Your task to perform on an android device: find photos in the google photos app Image 0: 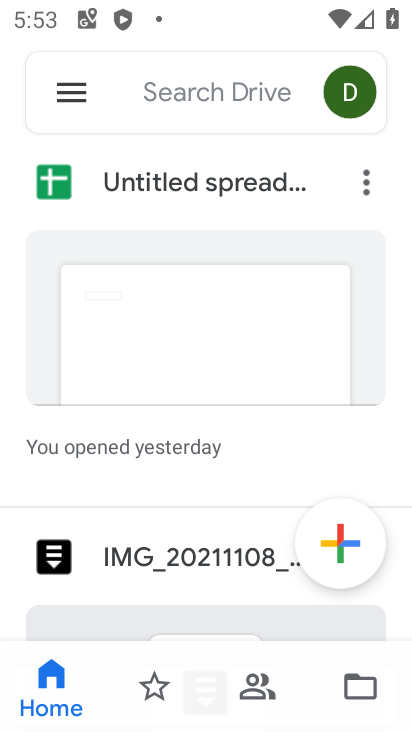
Step 0: press home button
Your task to perform on an android device: find photos in the google photos app Image 1: 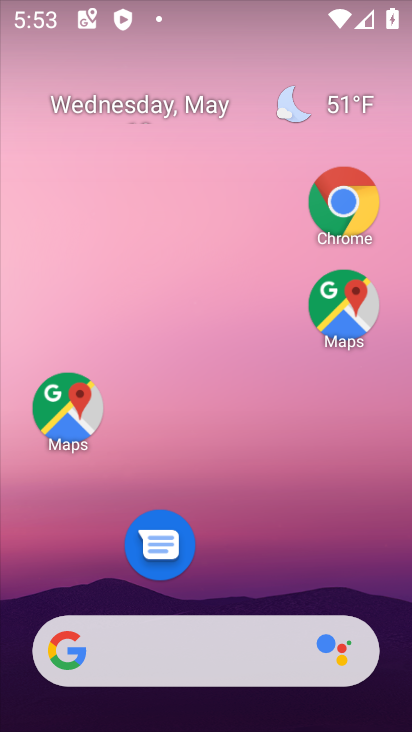
Step 1: drag from (251, 578) to (204, 60)
Your task to perform on an android device: find photos in the google photos app Image 2: 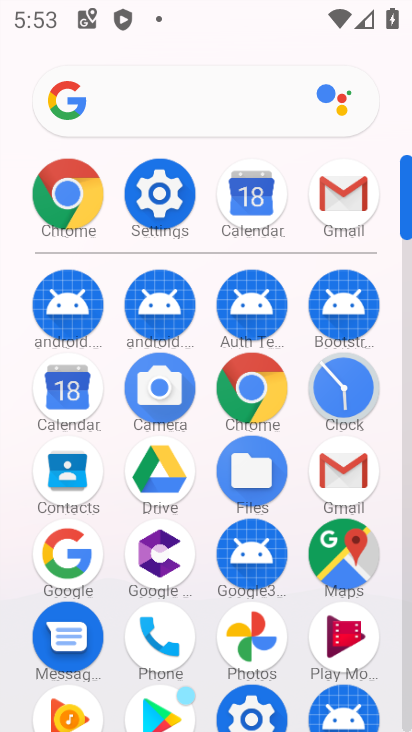
Step 2: click (258, 648)
Your task to perform on an android device: find photos in the google photos app Image 3: 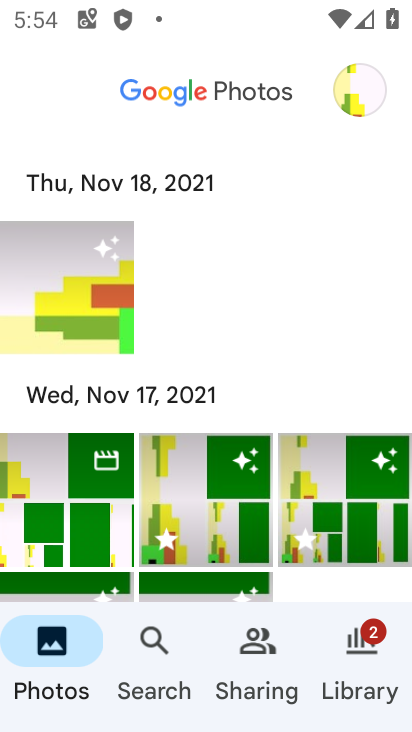
Step 3: task complete